Your task to perform on an android device: empty trash in the gmail app Image 0: 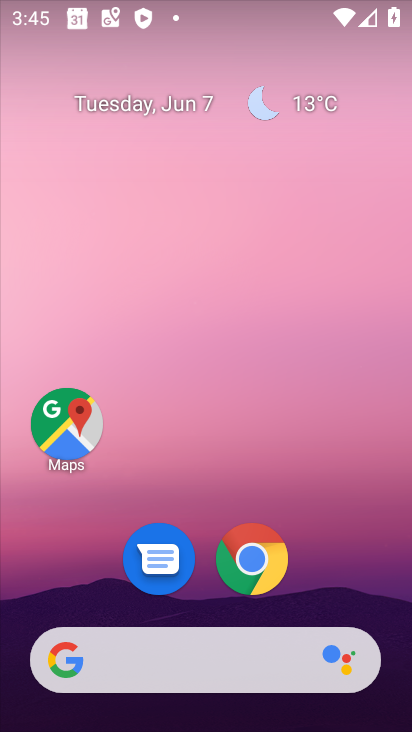
Step 0: drag from (318, 578) to (203, 80)
Your task to perform on an android device: empty trash in the gmail app Image 1: 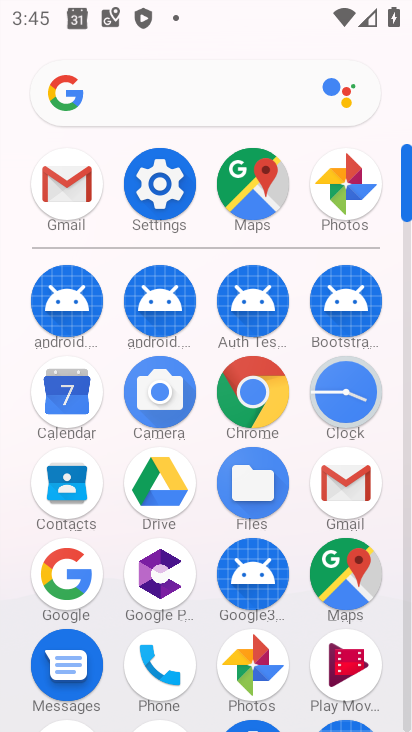
Step 1: click (68, 183)
Your task to perform on an android device: empty trash in the gmail app Image 2: 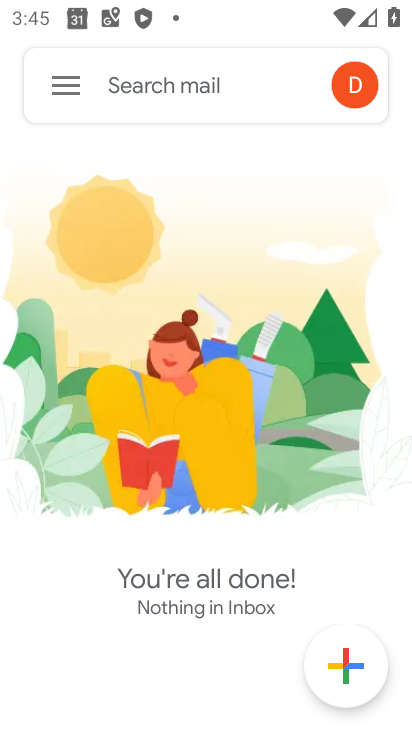
Step 2: click (61, 91)
Your task to perform on an android device: empty trash in the gmail app Image 3: 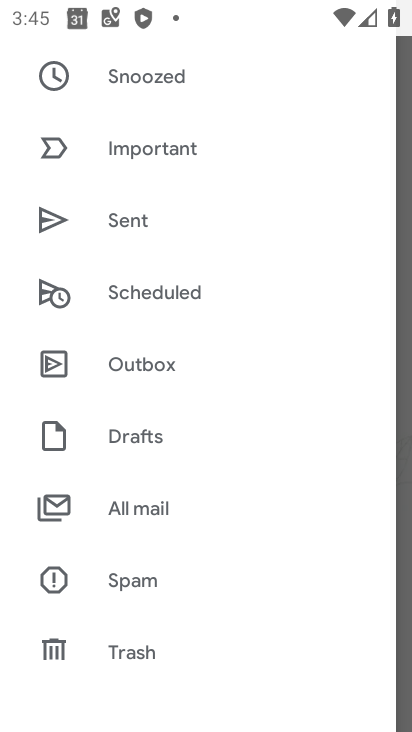
Step 3: click (123, 649)
Your task to perform on an android device: empty trash in the gmail app Image 4: 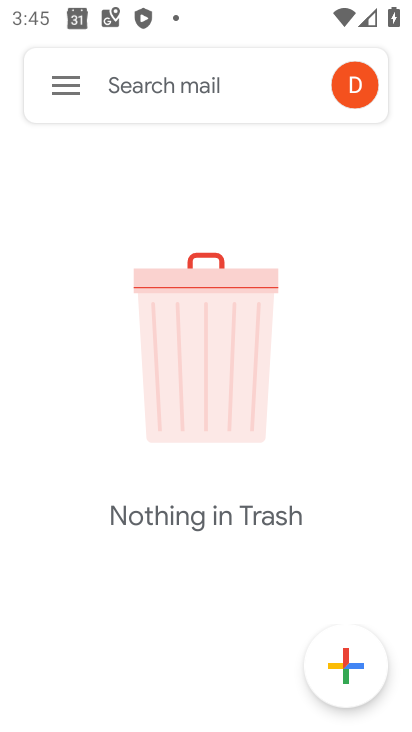
Step 4: task complete